Your task to perform on an android device: Go to network settings Image 0: 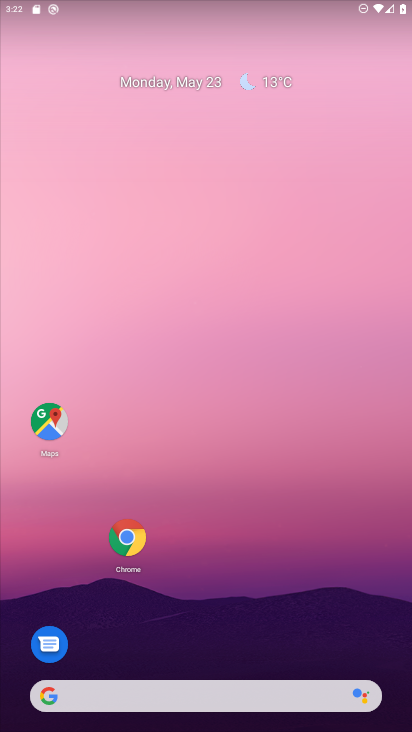
Step 0: drag from (285, 435) to (228, 150)
Your task to perform on an android device: Go to network settings Image 1: 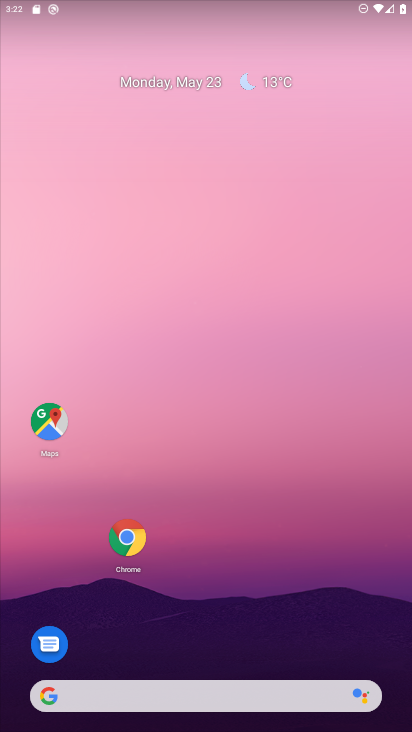
Step 1: drag from (259, 418) to (171, 8)
Your task to perform on an android device: Go to network settings Image 2: 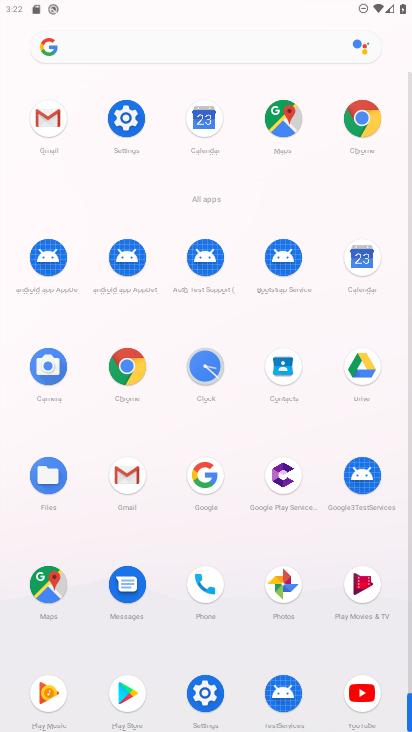
Step 2: click (126, 119)
Your task to perform on an android device: Go to network settings Image 3: 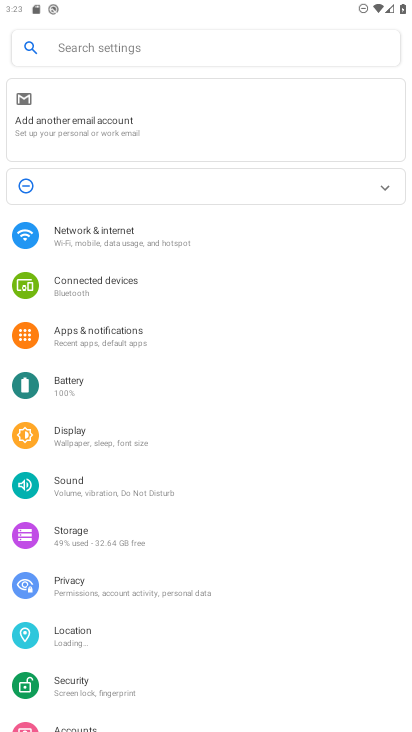
Step 3: click (133, 238)
Your task to perform on an android device: Go to network settings Image 4: 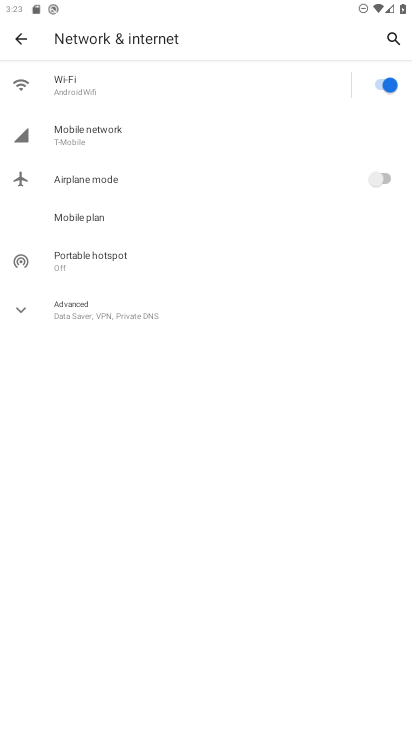
Step 4: task complete